Your task to perform on an android device: find which apps use the phone's location Image 0: 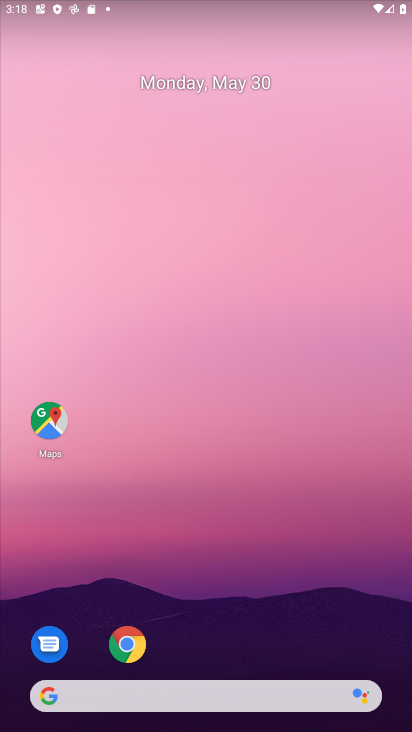
Step 0: drag from (235, 640) to (227, 8)
Your task to perform on an android device: find which apps use the phone's location Image 1: 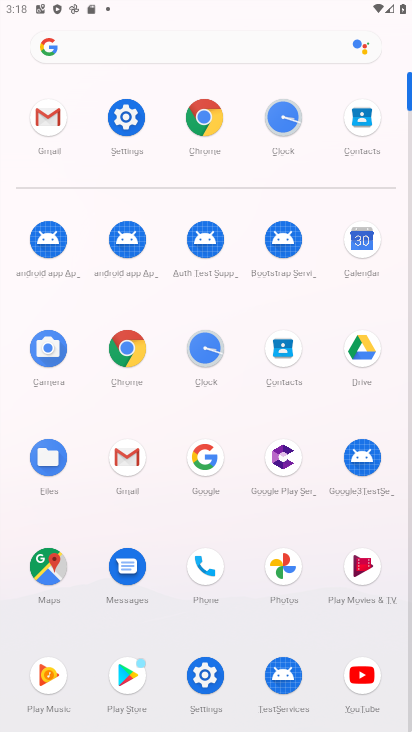
Step 1: click (116, 146)
Your task to perform on an android device: find which apps use the phone's location Image 2: 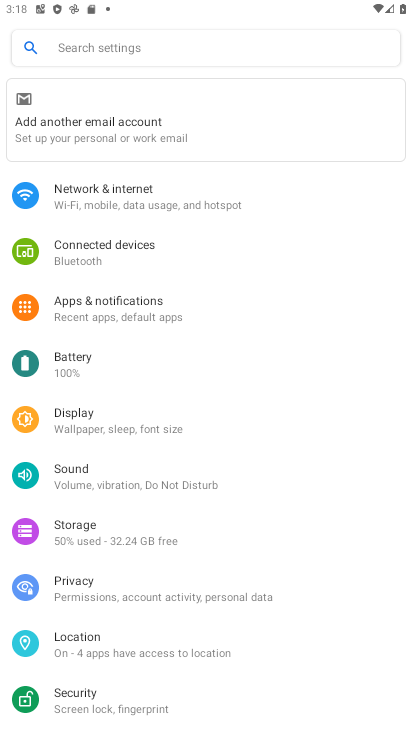
Step 2: click (100, 289)
Your task to perform on an android device: find which apps use the phone's location Image 3: 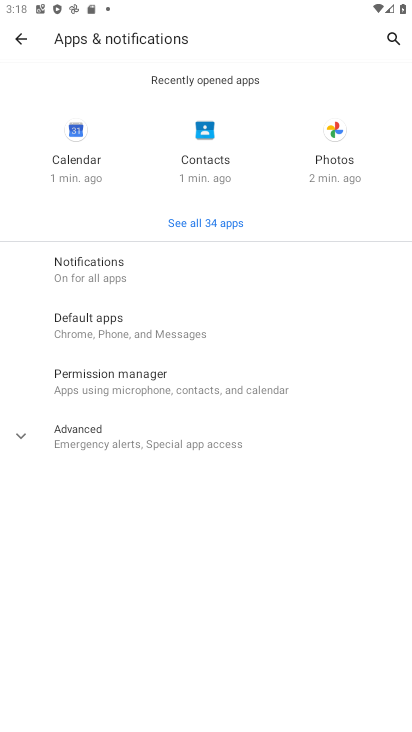
Step 3: task complete